Your task to perform on an android device: Open display settings Image 0: 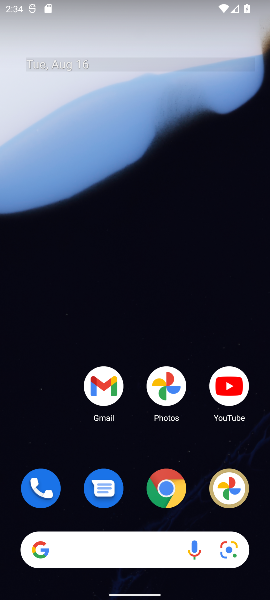
Step 0: drag from (146, 229) to (122, 48)
Your task to perform on an android device: Open display settings Image 1: 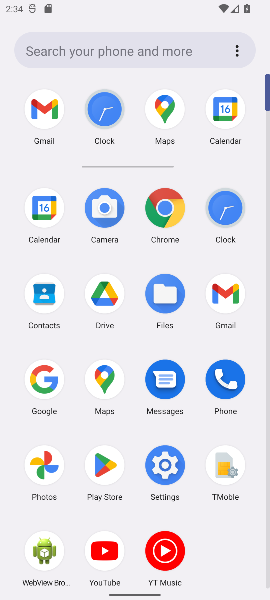
Step 1: click (169, 475)
Your task to perform on an android device: Open display settings Image 2: 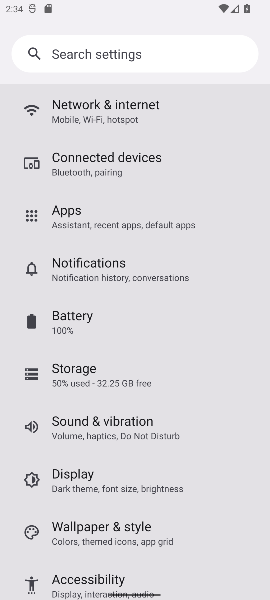
Step 2: task complete